Your task to perform on an android device: Open Google Chrome Image 0: 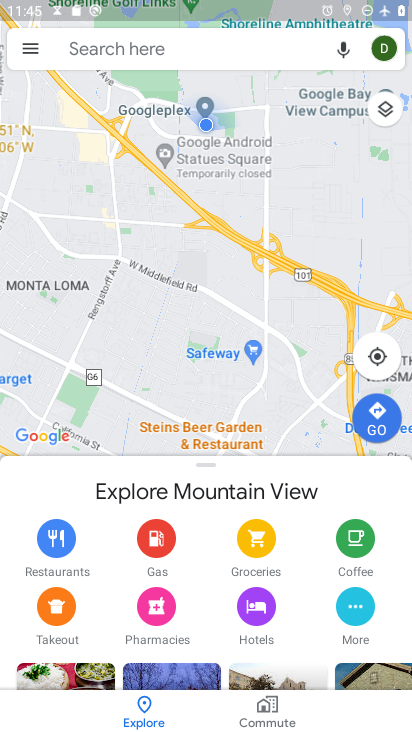
Step 0: press home button
Your task to perform on an android device: Open Google Chrome Image 1: 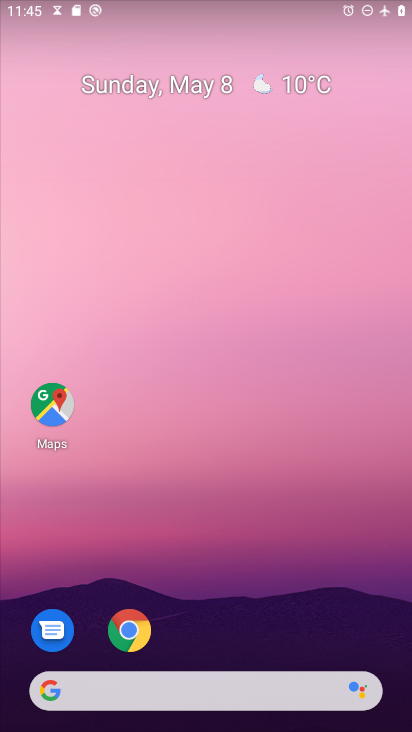
Step 1: drag from (119, 693) to (307, 69)
Your task to perform on an android device: Open Google Chrome Image 2: 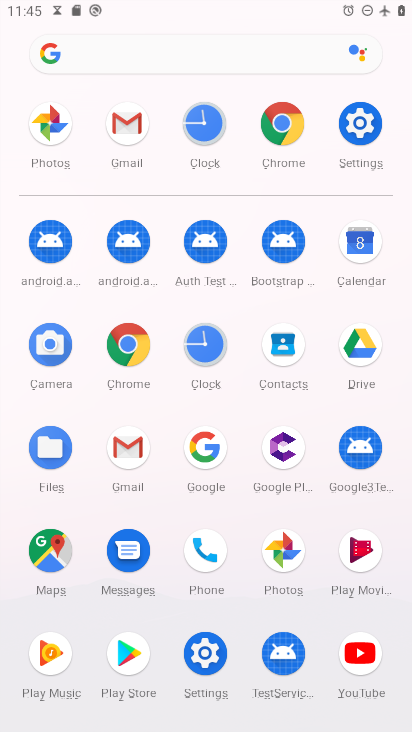
Step 2: click (285, 128)
Your task to perform on an android device: Open Google Chrome Image 3: 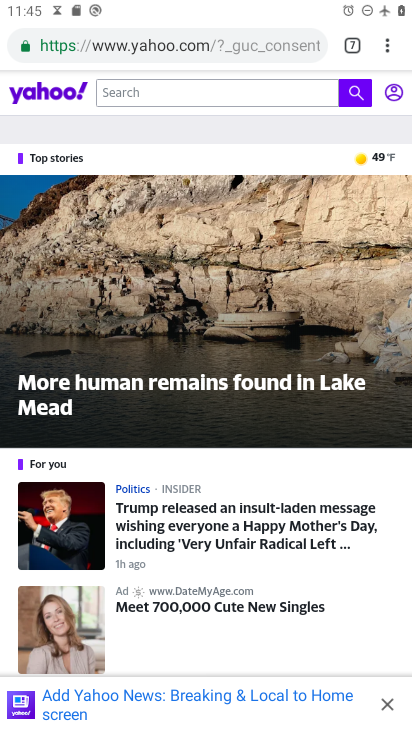
Step 3: task complete